Your task to perform on an android device: Toggle the flashlight Image 0: 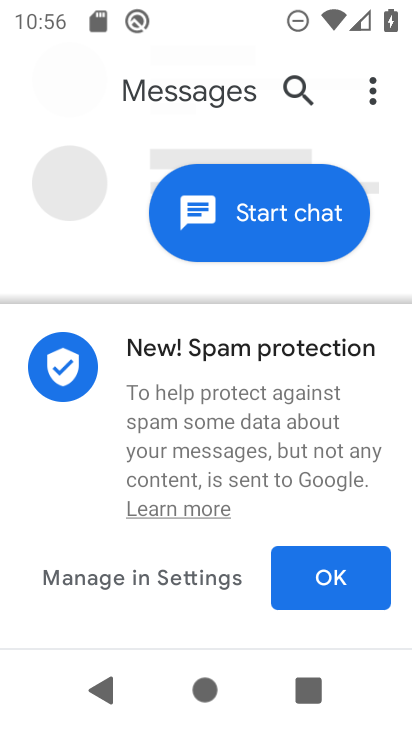
Step 0: press home button
Your task to perform on an android device: Toggle the flashlight Image 1: 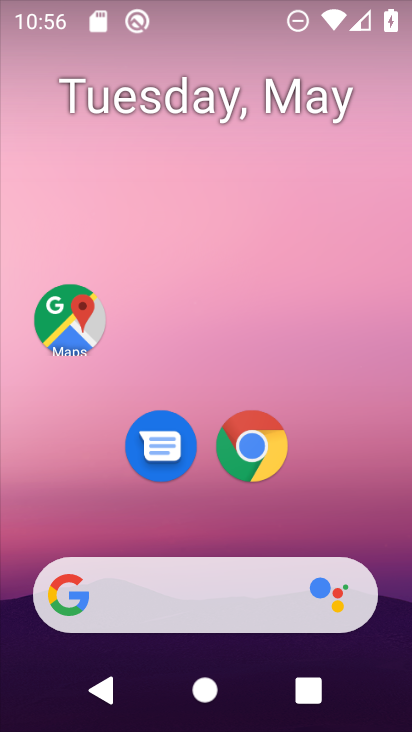
Step 1: drag from (255, 509) to (344, 134)
Your task to perform on an android device: Toggle the flashlight Image 2: 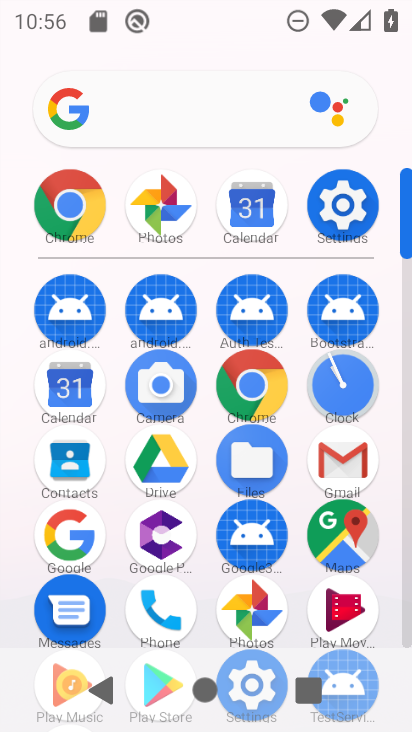
Step 2: click (359, 202)
Your task to perform on an android device: Toggle the flashlight Image 3: 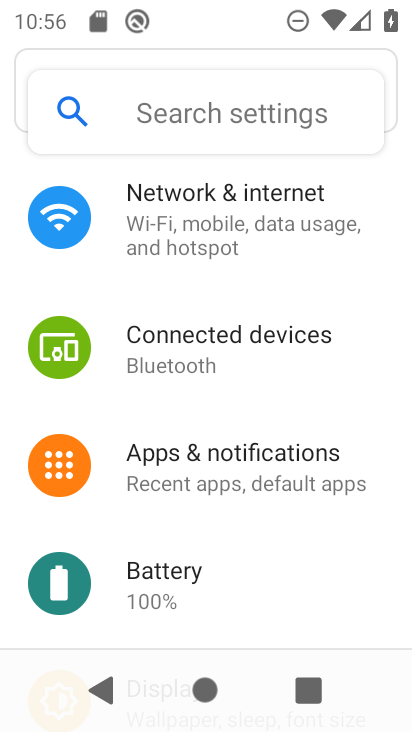
Step 3: click (243, 114)
Your task to perform on an android device: Toggle the flashlight Image 4: 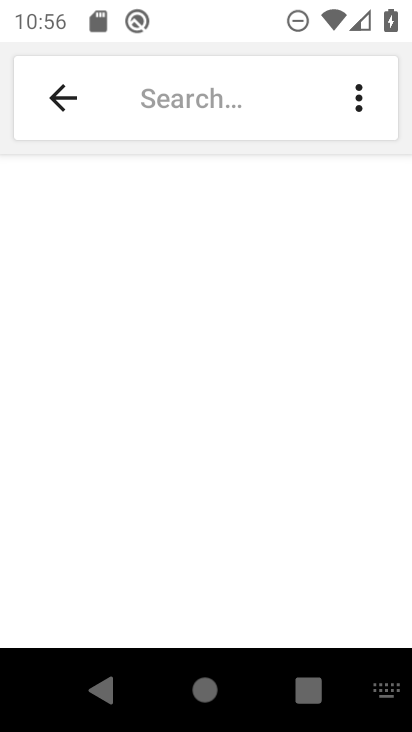
Step 4: type "flashlighrt"
Your task to perform on an android device: Toggle the flashlight Image 5: 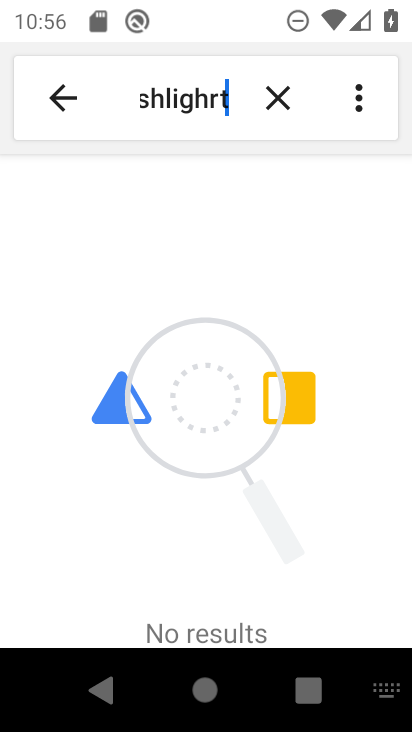
Step 5: click (202, 101)
Your task to perform on an android device: Toggle the flashlight Image 6: 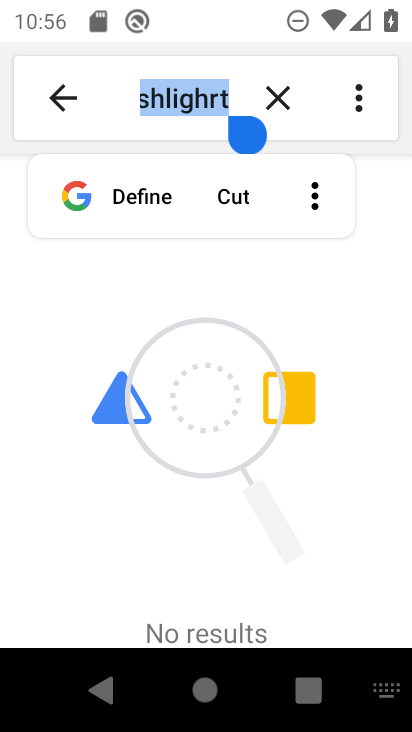
Step 6: type "flashlight"
Your task to perform on an android device: Toggle the flashlight Image 7: 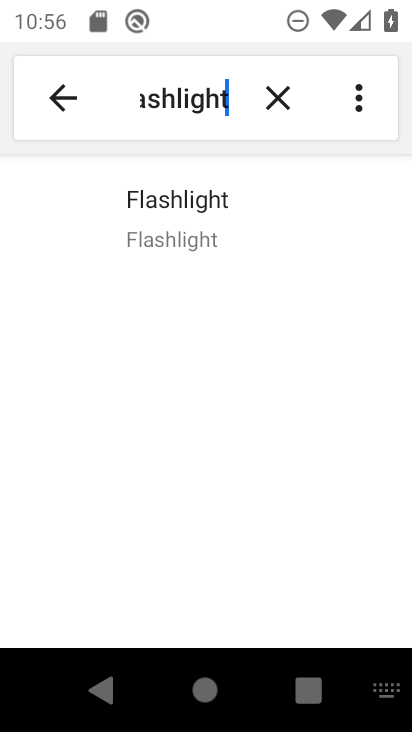
Step 7: click (201, 231)
Your task to perform on an android device: Toggle the flashlight Image 8: 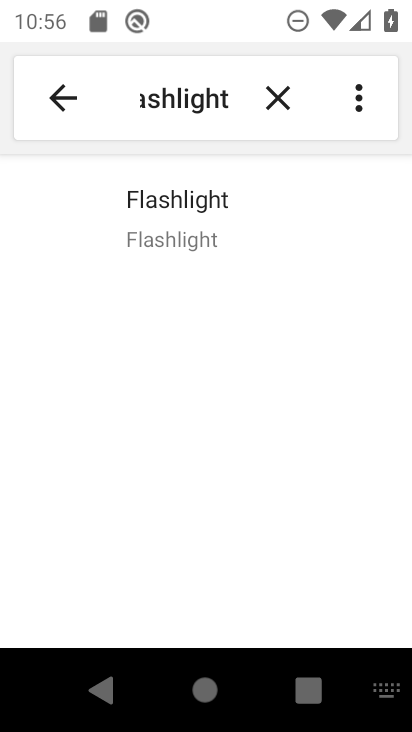
Step 8: click (200, 231)
Your task to perform on an android device: Toggle the flashlight Image 9: 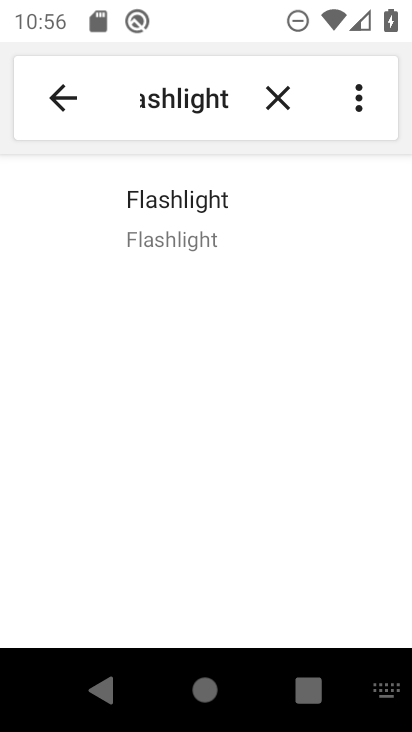
Step 9: click (199, 235)
Your task to perform on an android device: Toggle the flashlight Image 10: 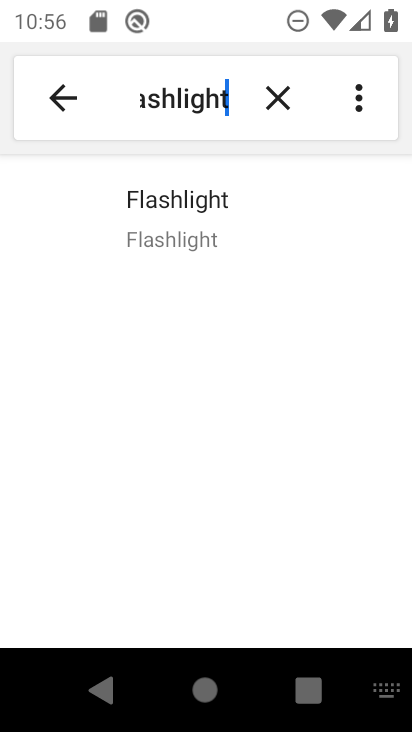
Step 10: task complete